Your task to perform on an android device: Go to internet settings Image 0: 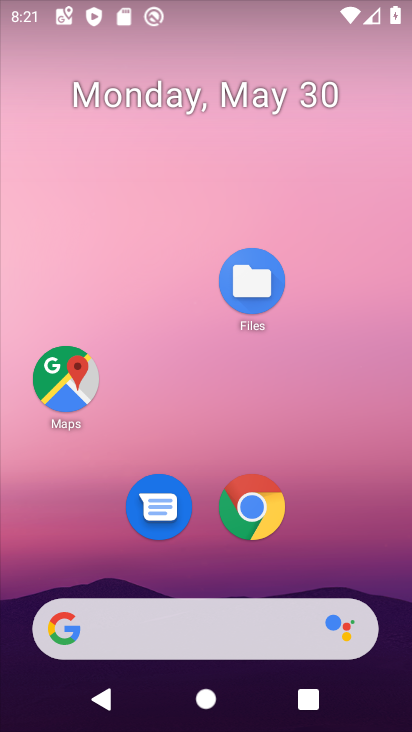
Step 0: drag from (205, 509) to (199, 305)
Your task to perform on an android device: Go to internet settings Image 1: 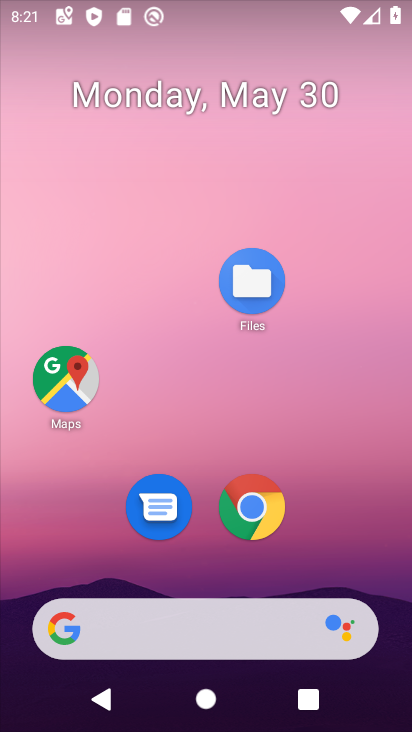
Step 1: drag from (221, 575) to (224, 171)
Your task to perform on an android device: Go to internet settings Image 2: 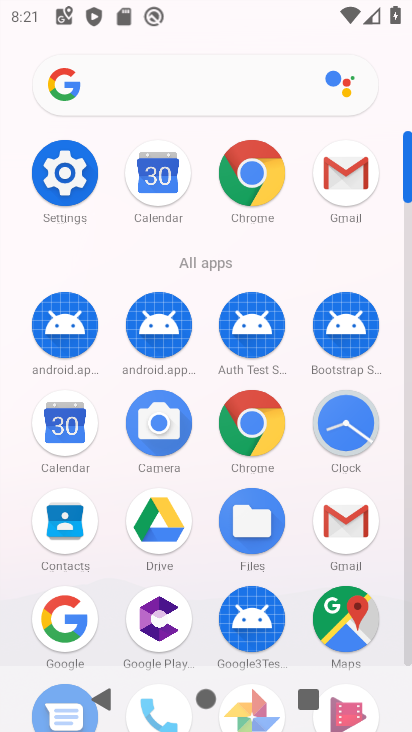
Step 2: click (61, 185)
Your task to perform on an android device: Go to internet settings Image 3: 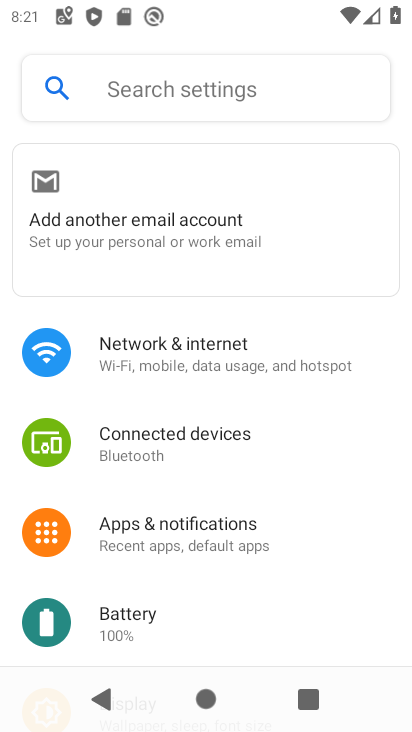
Step 3: click (157, 346)
Your task to perform on an android device: Go to internet settings Image 4: 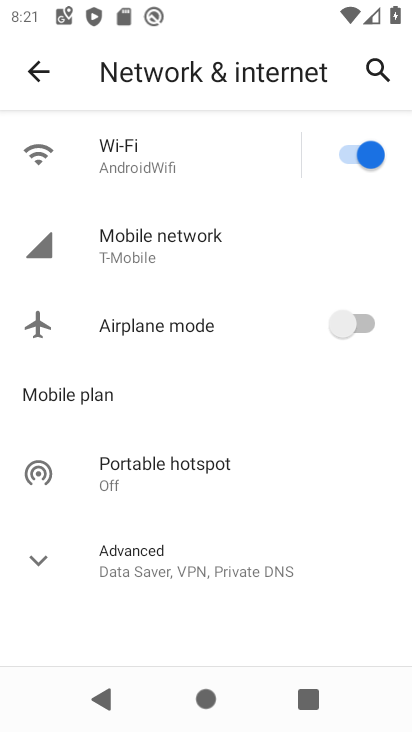
Step 4: task complete